Your task to perform on an android device: star an email in the gmail app Image 0: 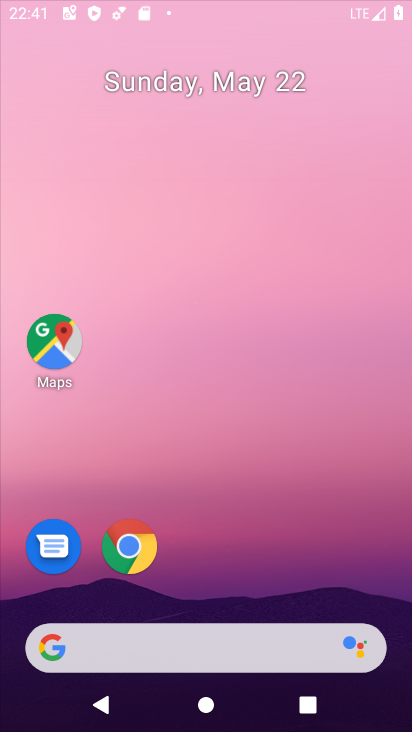
Step 0: drag from (399, 525) to (346, 2)
Your task to perform on an android device: star an email in the gmail app Image 1: 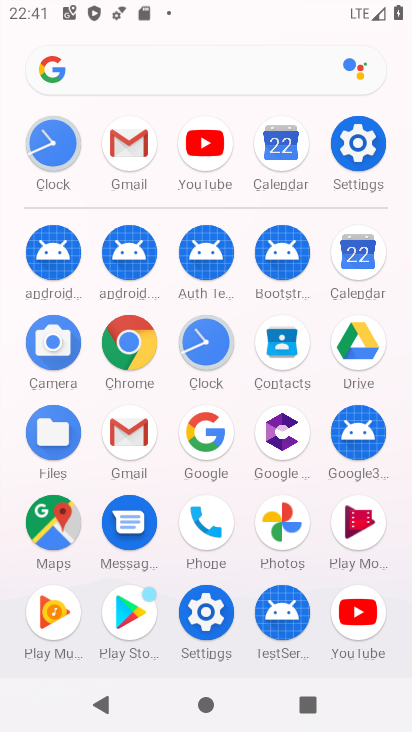
Step 1: click (138, 442)
Your task to perform on an android device: star an email in the gmail app Image 2: 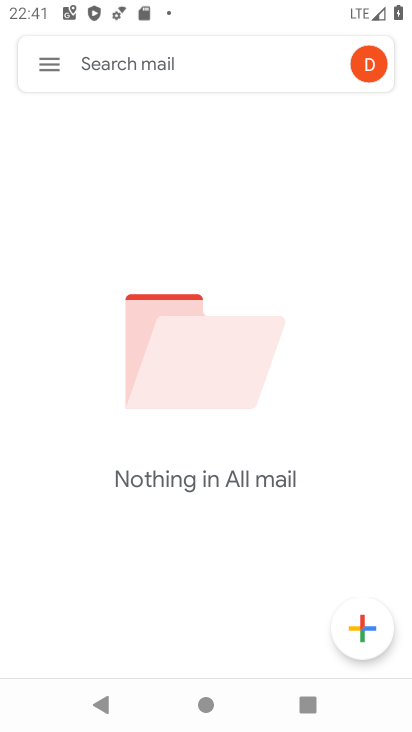
Step 2: drag from (195, 565) to (245, 75)
Your task to perform on an android device: star an email in the gmail app Image 3: 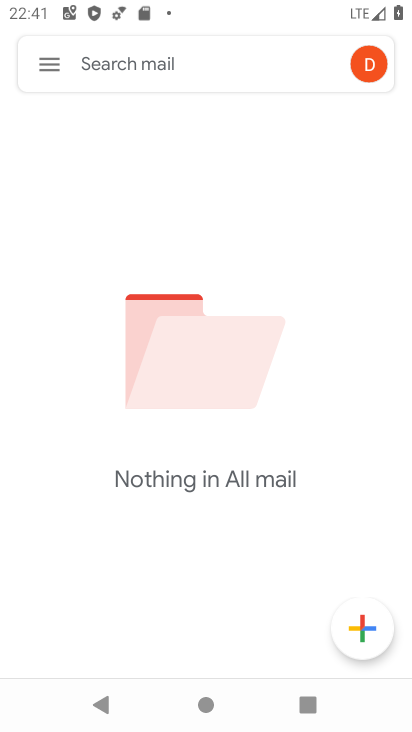
Step 3: click (51, 67)
Your task to perform on an android device: star an email in the gmail app Image 4: 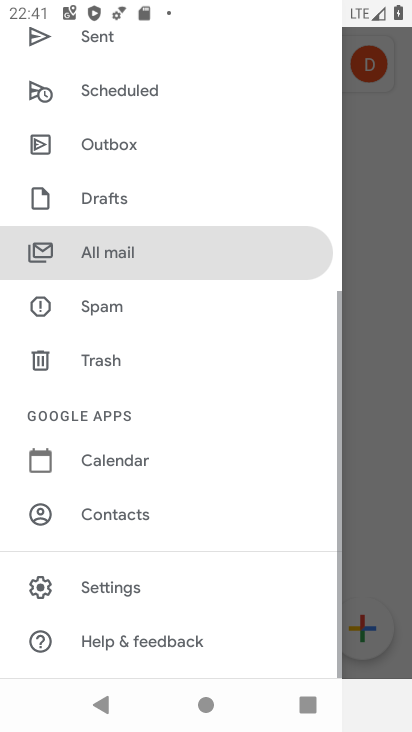
Step 4: drag from (220, 121) to (168, 511)
Your task to perform on an android device: star an email in the gmail app Image 5: 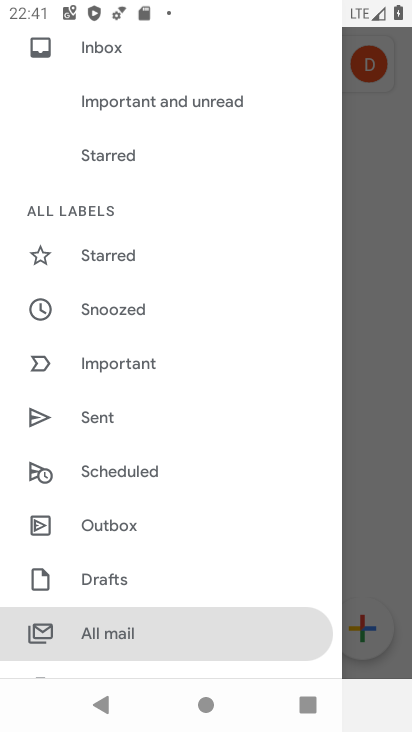
Step 5: click (111, 272)
Your task to perform on an android device: star an email in the gmail app Image 6: 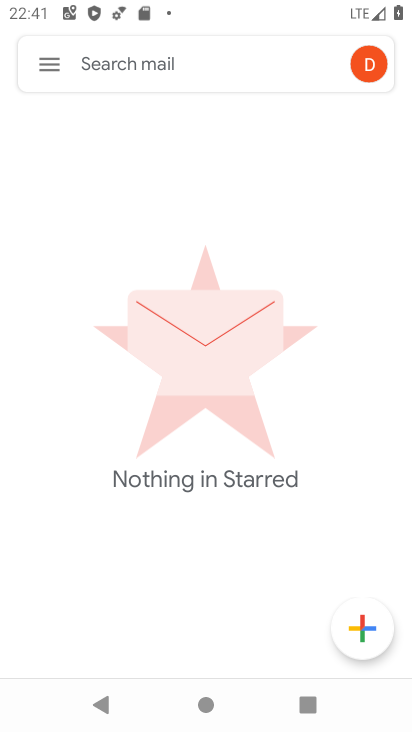
Step 6: drag from (221, 455) to (398, 300)
Your task to perform on an android device: star an email in the gmail app Image 7: 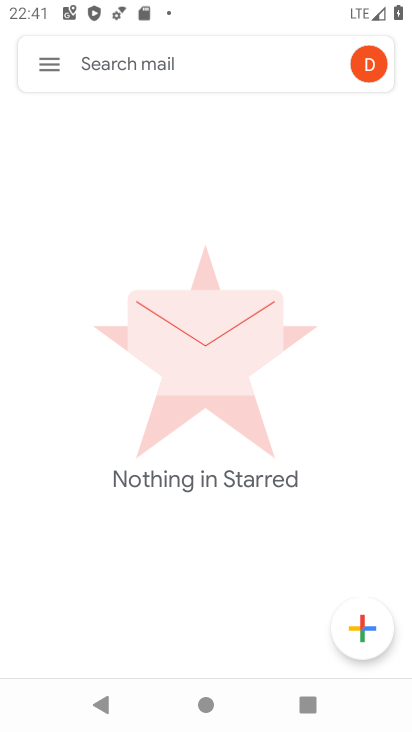
Step 7: drag from (261, 445) to (336, 336)
Your task to perform on an android device: star an email in the gmail app Image 8: 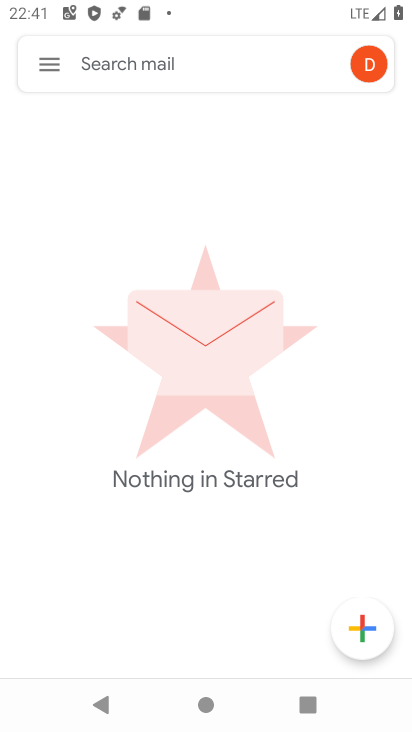
Step 8: click (46, 70)
Your task to perform on an android device: star an email in the gmail app Image 9: 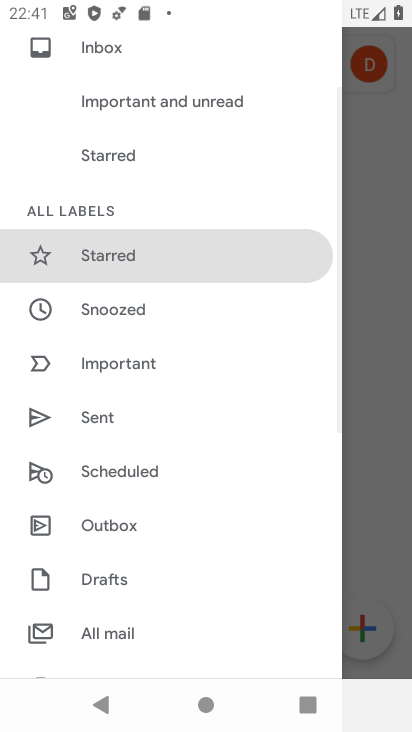
Step 9: click (77, 249)
Your task to perform on an android device: star an email in the gmail app Image 10: 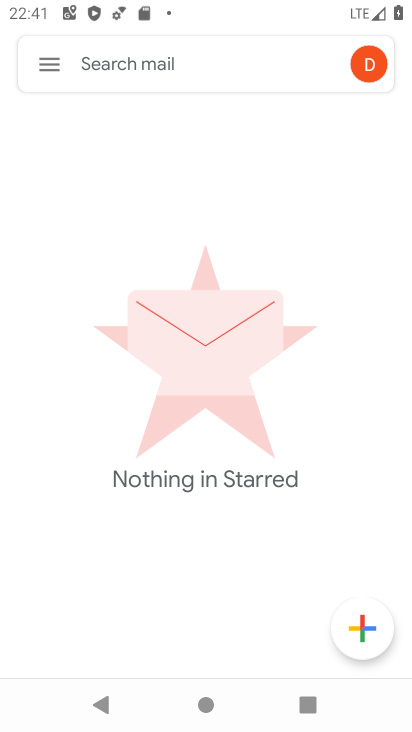
Step 10: task complete